Your task to perform on an android device: turn off notifications settings in the gmail app Image 0: 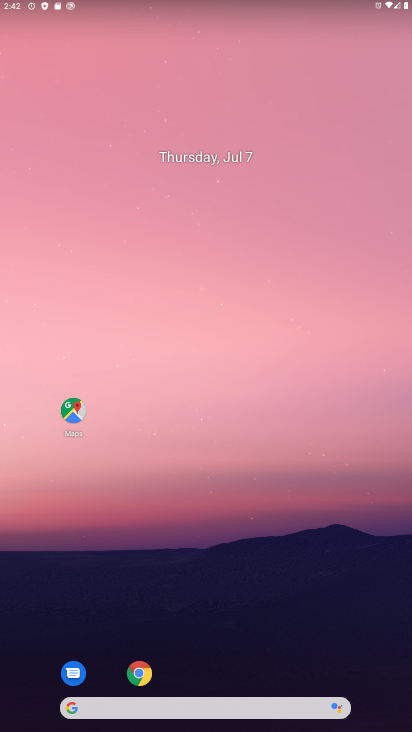
Step 0: drag from (256, 701) to (256, 124)
Your task to perform on an android device: turn off notifications settings in the gmail app Image 1: 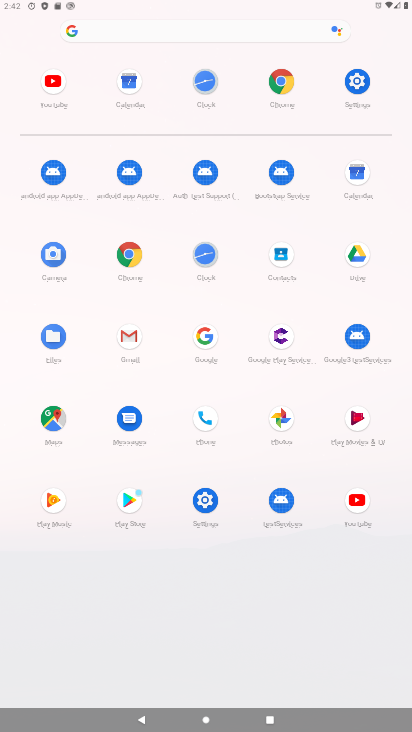
Step 1: click (354, 78)
Your task to perform on an android device: turn off notifications settings in the gmail app Image 2: 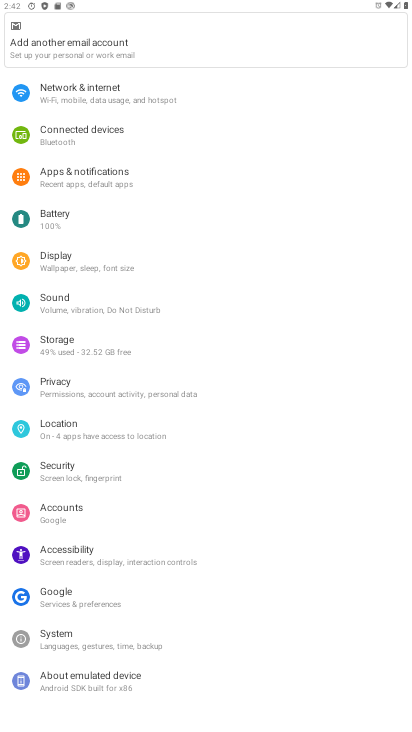
Step 2: click (93, 177)
Your task to perform on an android device: turn off notifications settings in the gmail app Image 3: 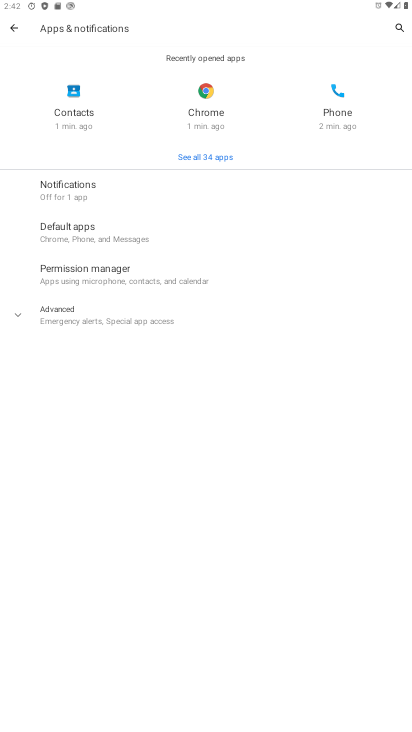
Step 3: click (35, 311)
Your task to perform on an android device: turn off notifications settings in the gmail app Image 4: 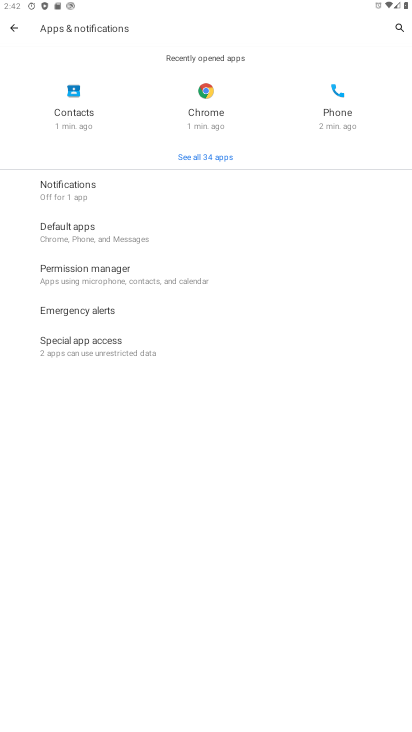
Step 4: click (69, 194)
Your task to perform on an android device: turn off notifications settings in the gmail app Image 5: 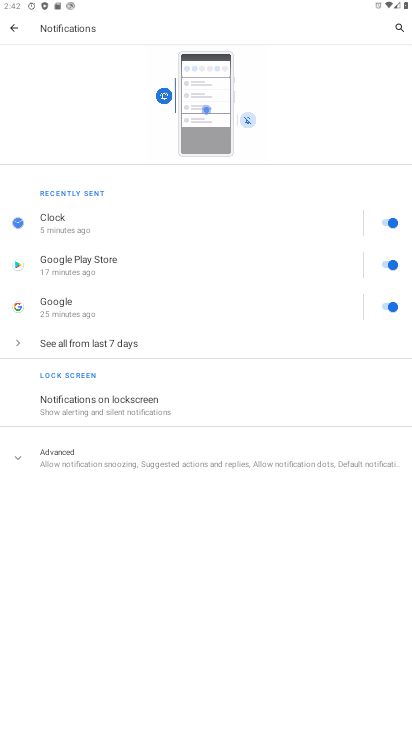
Step 5: click (70, 335)
Your task to perform on an android device: turn off notifications settings in the gmail app Image 6: 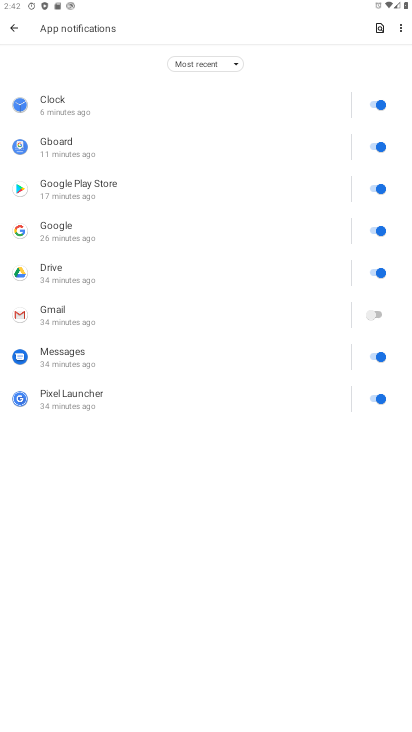
Step 6: click (182, 61)
Your task to perform on an android device: turn off notifications settings in the gmail app Image 7: 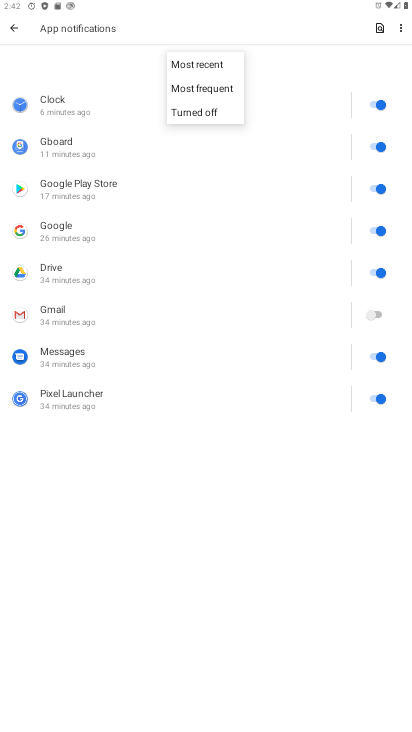
Step 7: click (198, 115)
Your task to perform on an android device: turn off notifications settings in the gmail app Image 8: 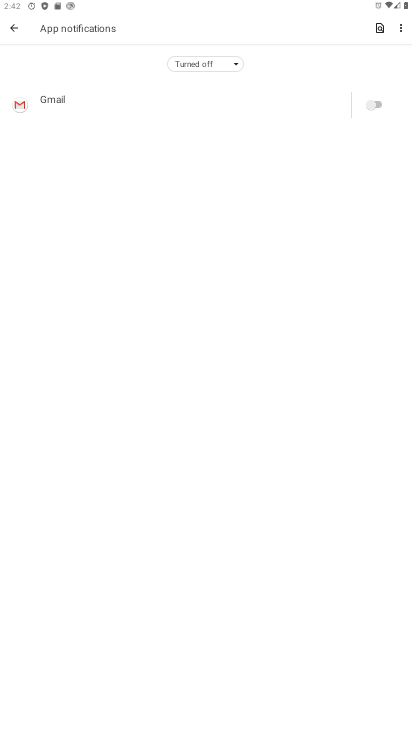
Step 8: task complete